Your task to perform on an android device: turn on notifications settings in the gmail app Image 0: 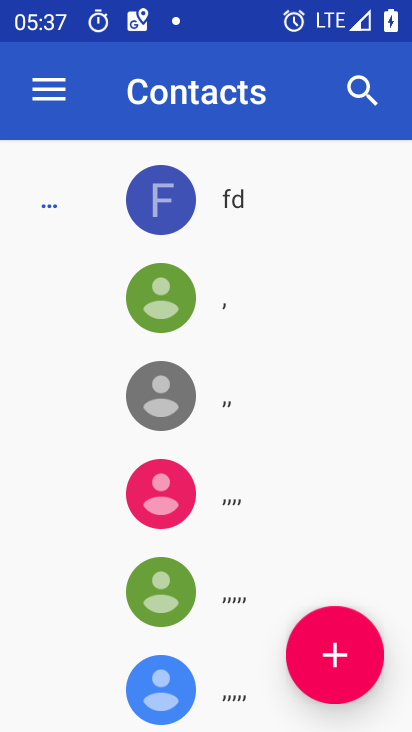
Step 0: press home button
Your task to perform on an android device: turn on notifications settings in the gmail app Image 1: 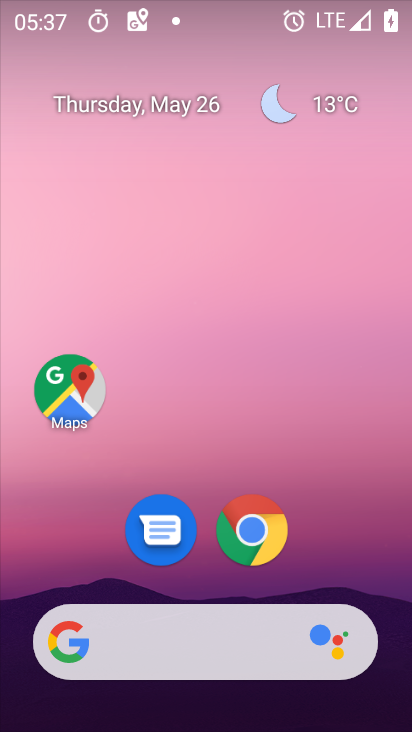
Step 1: drag from (290, 592) to (297, 17)
Your task to perform on an android device: turn on notifications settings in the gmail app Image 2: 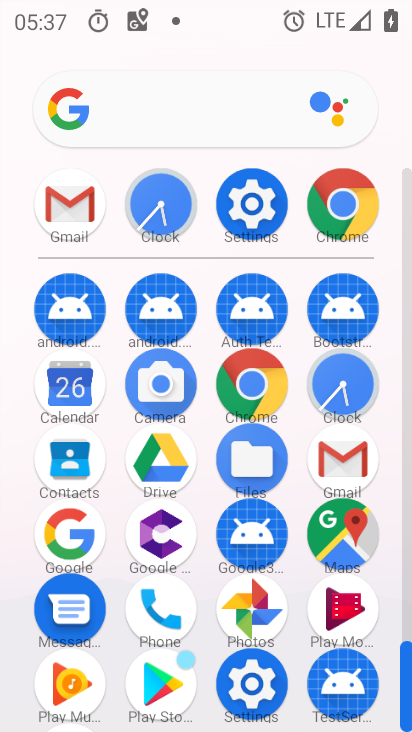
Step 2: click (340, 463)
Your task to perform on an android device: turn on notifications settings in the gmail app Image 3: 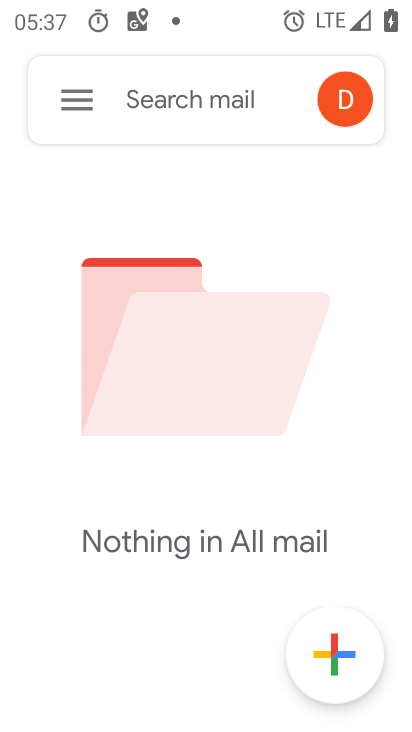
Step 3: click (71, 89)
Your task to perform on an android device: turn on notifications settings in the gmail app Image 4: 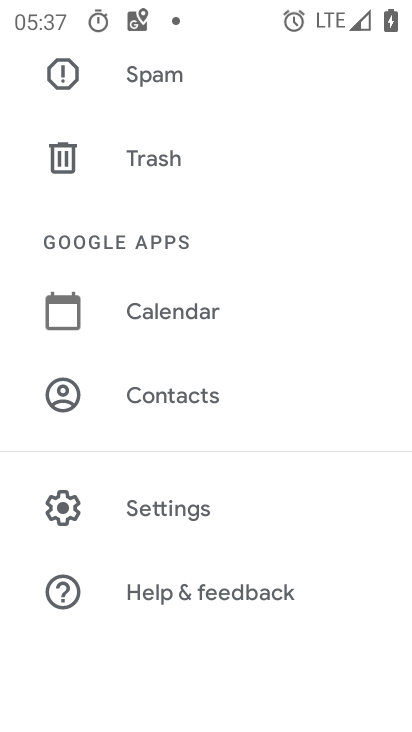
Step 4: click (231, 526)
Your task to perform on an android device: turn on notifications settings in the gmail app Image 5: 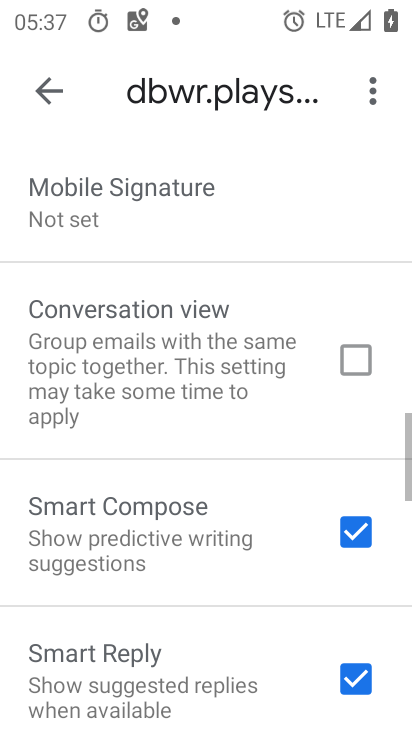
Step 5: drag from (250, 591) to (222, 149)
Your task to perform on an android device: turn on notifications settings in the gmail app Image 6: 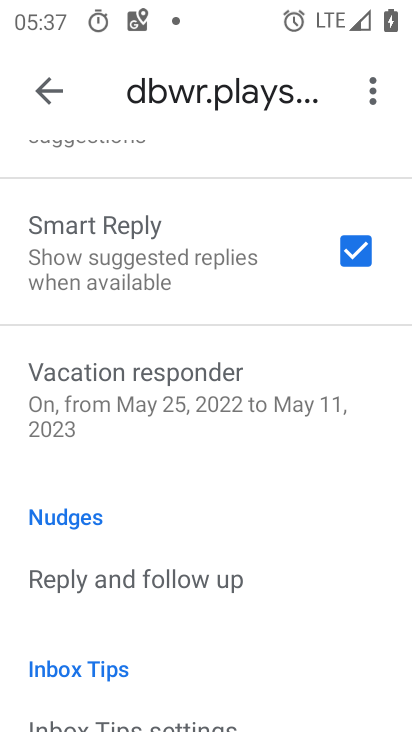
Step 6: drag from (229, 191) to (171, 697)
Your task to perform on an android device: turn on notifications settings in the gmail app Image 7: 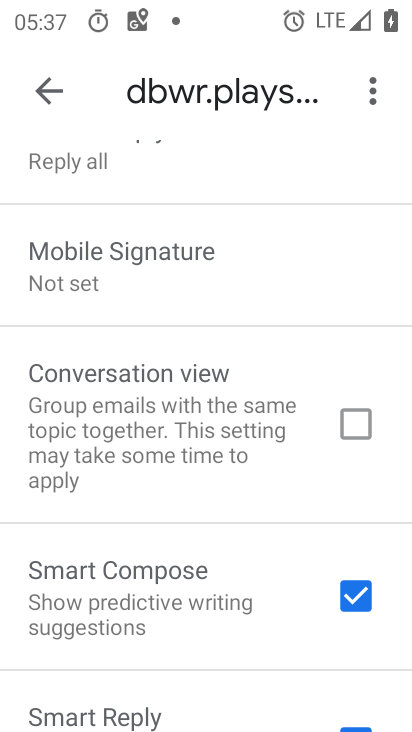
Step 7: drag from (200, 302) to (280, 719)
Your task to perform on an android device: turn on notifications settings in the gmail app Image 8: 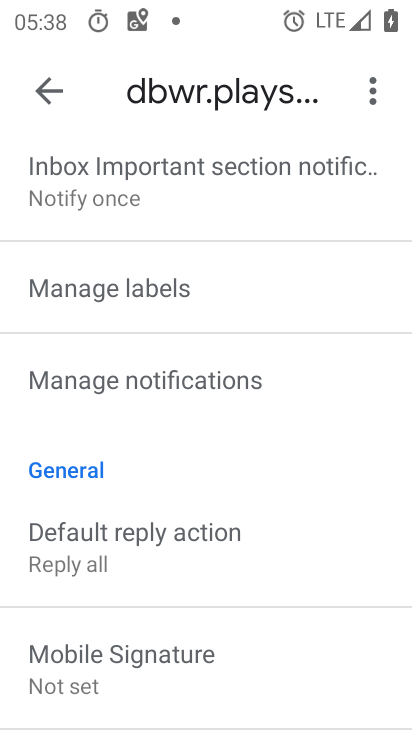
Step 8: click (253, 386)
Your task to perform on an android device: turn on notifications settings in the gmail app Image 9: 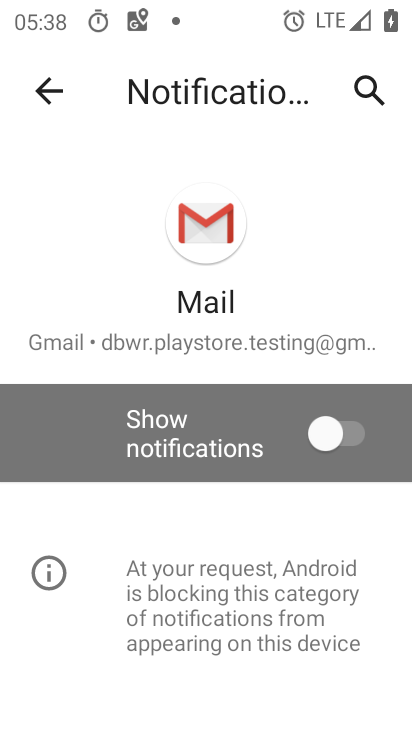
Step 9: task complete